Your task to perform on an android device: set the stopwatch Image 0: 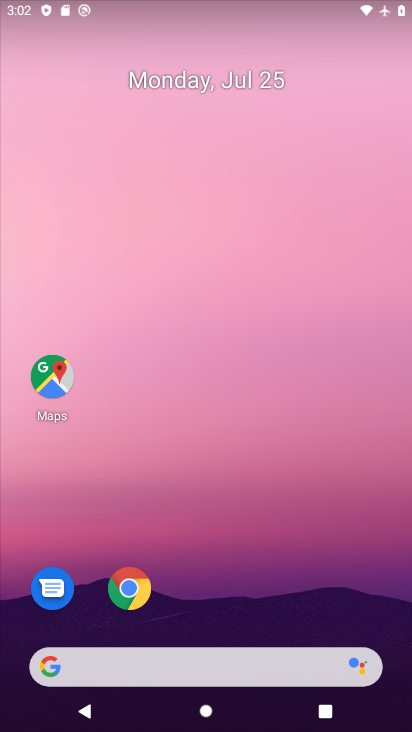
Step 0: drag from (237, 723) to (230, 105)
Your task to perform on an android device: set the stopwatch Image 1: 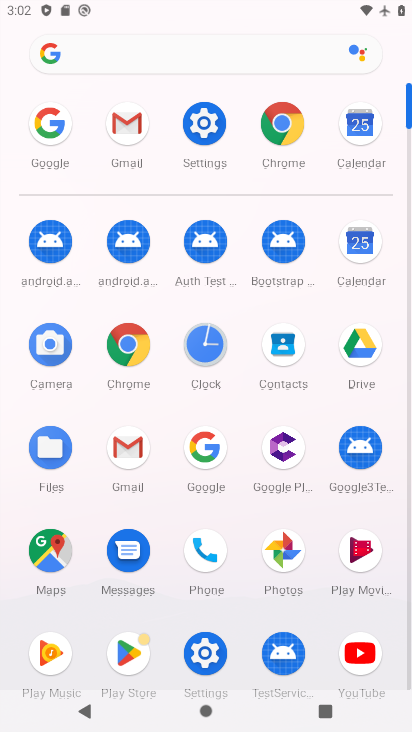
Step 1: click (214, 345)
Your task to perform on an android device: set the stopwatch Image 2: 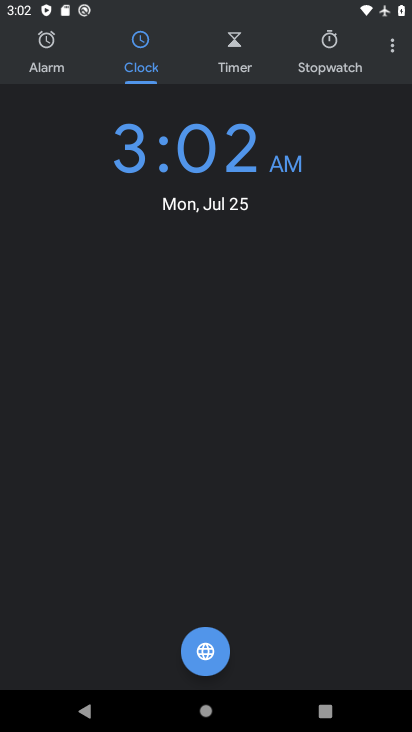
Step 2: click (327, 48)
Your task to perform on an android device: set the stopwatch Image 3: 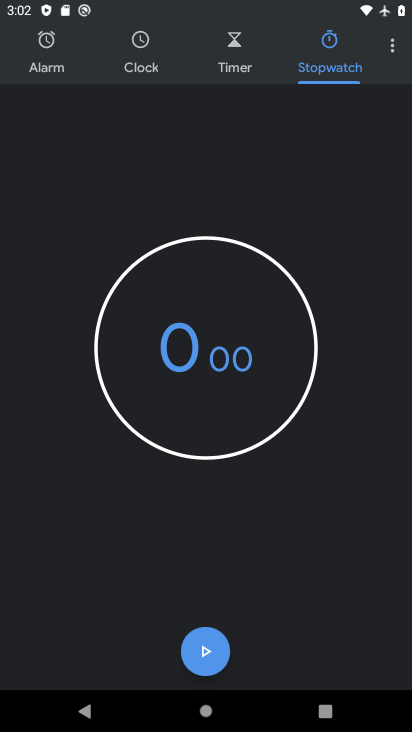
Step 3: task complete